Your task to perform on an android device: Go to Google Image 0: 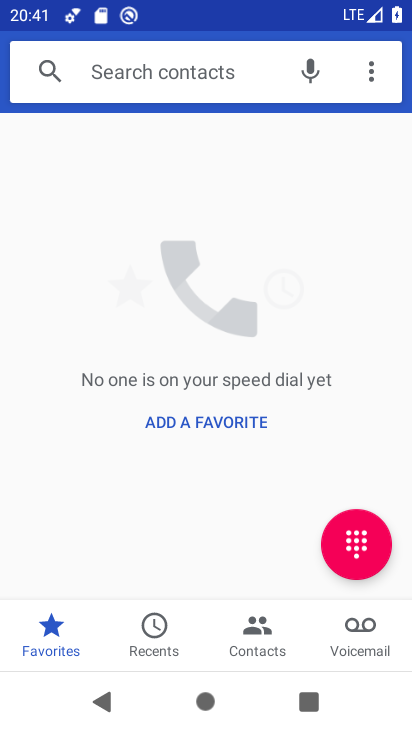
Step 0: press home button
Your task to perform on an android device: Go to Google Image 1: 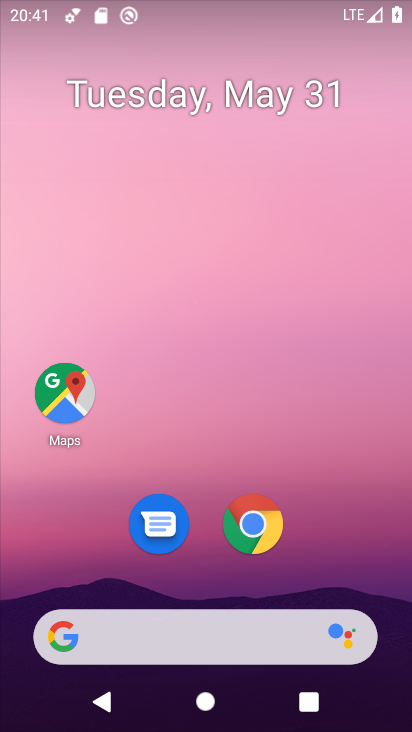
Step 1: click (209, 645)
Your task to perform on an android device: Go to Google Image 2: 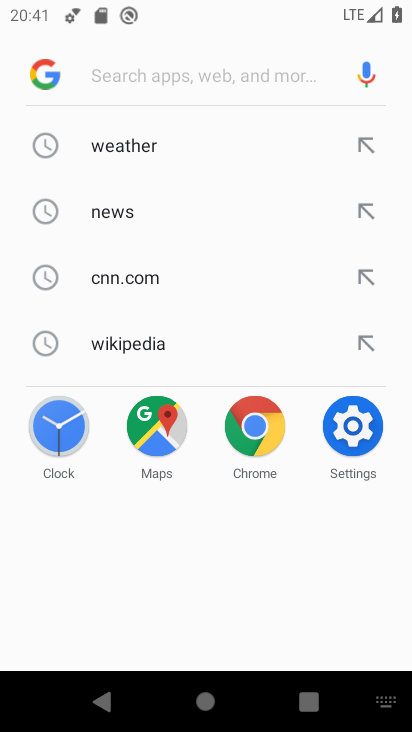
Step 2: click (37, 77)
Your task to perform on an android device: Go to Google Image 3: 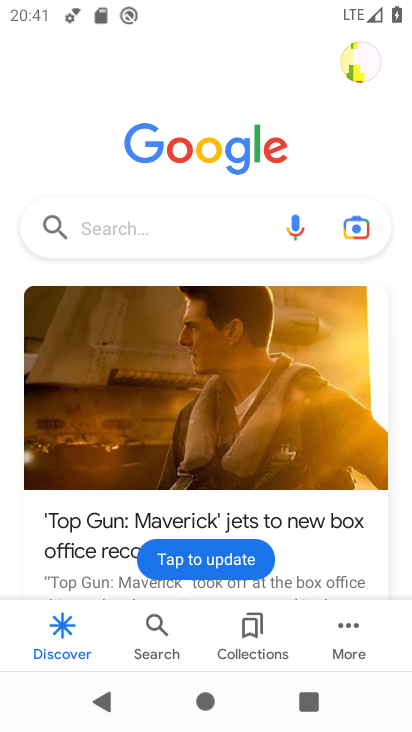
Step 3: task complete